Your task to perform on an android device: Open calendar and show me the third week of next month Image 0: 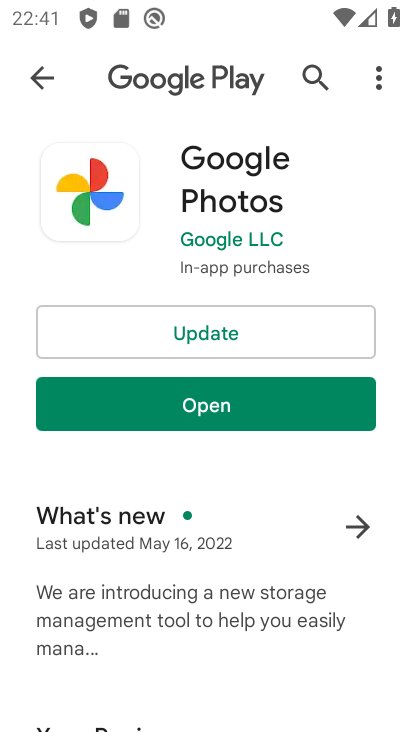
Step 0: press home button
Your task to perform on an android device: Open calendar and show me the third week of next month Image 1: 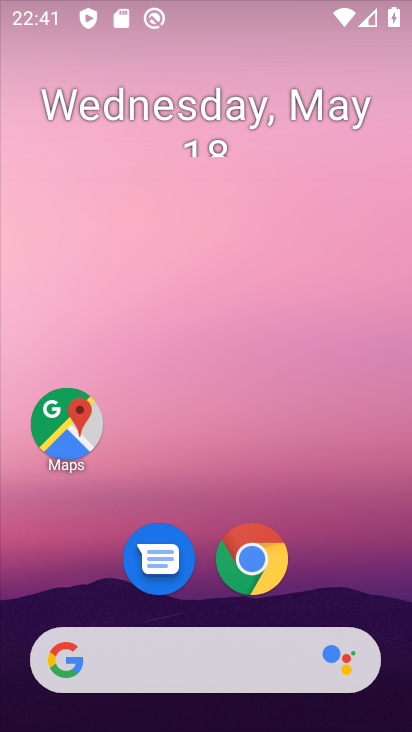
Step 1: drag from (204, 551) to (209, 185)
Your task to perform on an android device: Open calendar and show me the third week of next month Image 2: 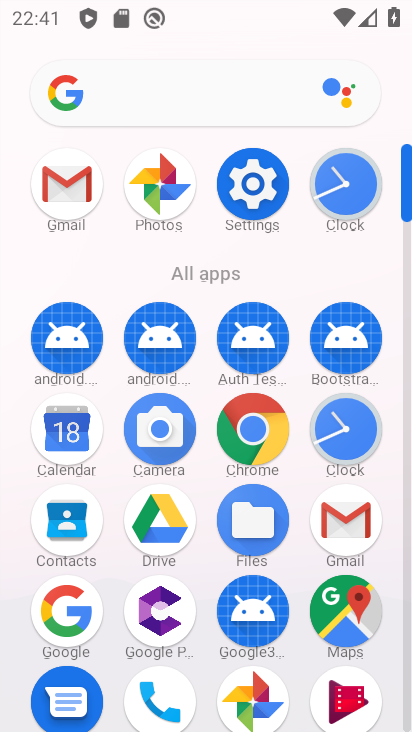
Step 2: click (60, 455)
Your task to perform on an android device: Open calendar and show me the third week of next month Image 3: 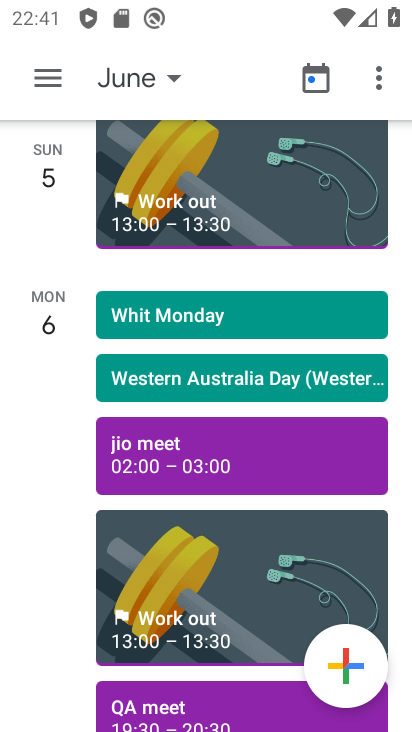
Step 3: click (47, 81)
Your task to perform on an android device: Open calendar and show me the third week of next month Image 4: 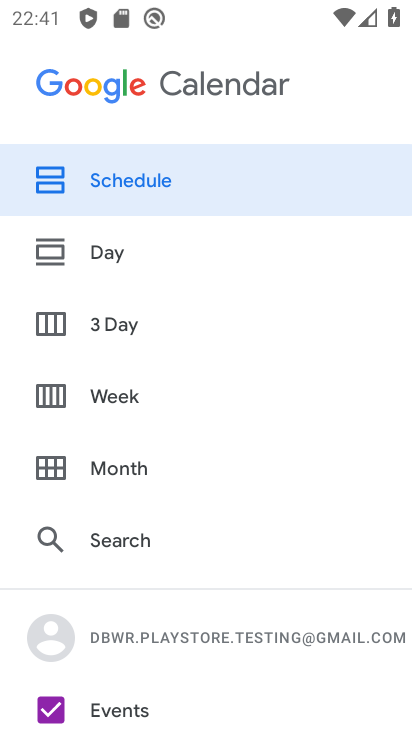
Step 4: click (120, 396)
Your task to perform on an android device: Open calendar and show me the third week of next month Image 5: 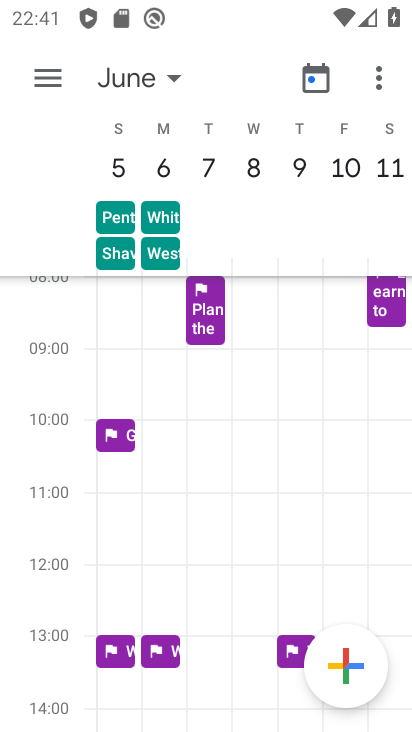
Step 5: click (117, 81)
Your task to perform on an android device: Open calendar and show me the third week of next month Image 6: 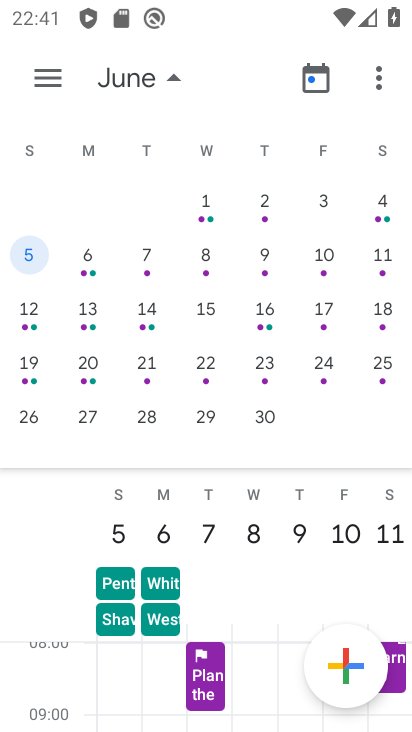
Step 6: click (38, 364)
Your task to perform on an android device: Open calendar and show me the third week of next month Image 7: 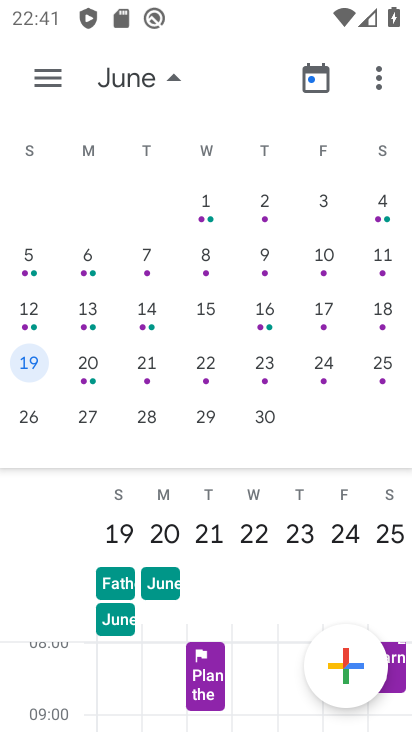
Step 7: task complete